Your task to perform on an android device: see tabs open on other devices in the chrome app Image 0: 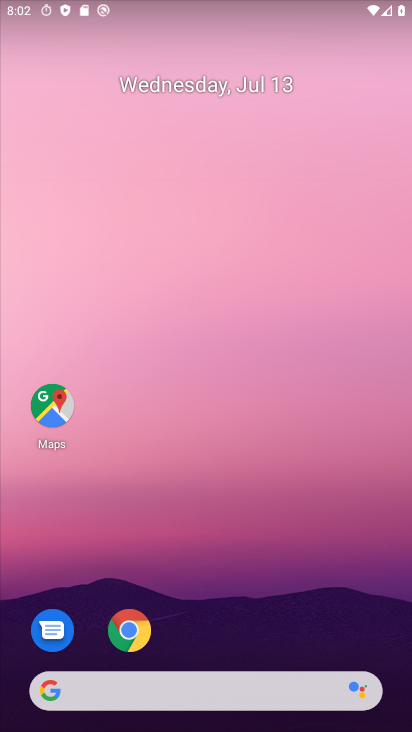
Step 0: drag from (209, 254) to (269, 156)
Your task to perform on an android device: see tabs open on other devices in the chrome app Image 1: 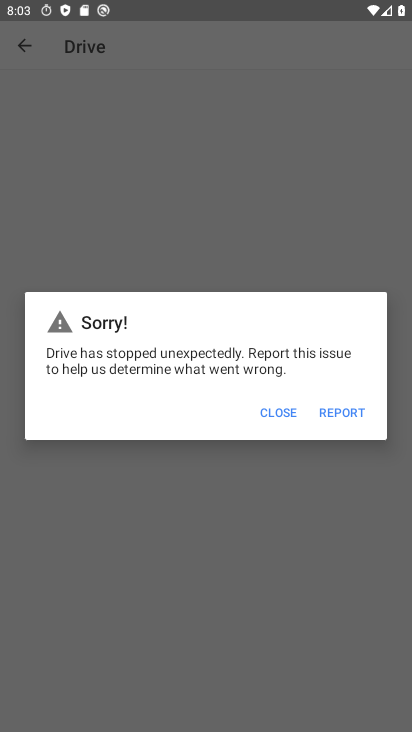
Step 1: press home button
Your task to perform on an android device: see tabs open on other devices in the chrome app Image 2: 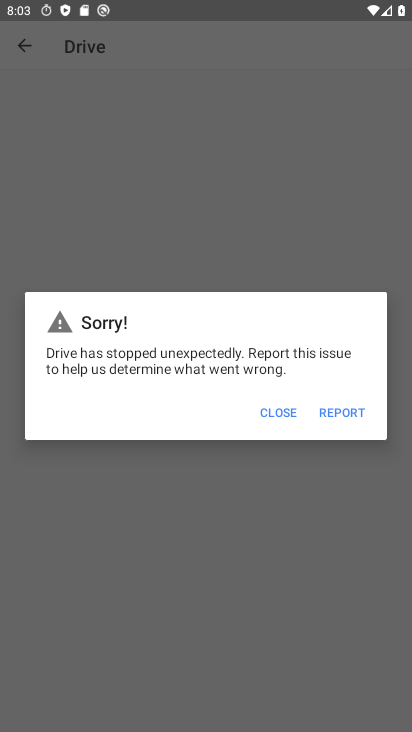
Step 2: press home button
Your task to perform on an android device: see tabs open on other devices in the chrome app Image 3: 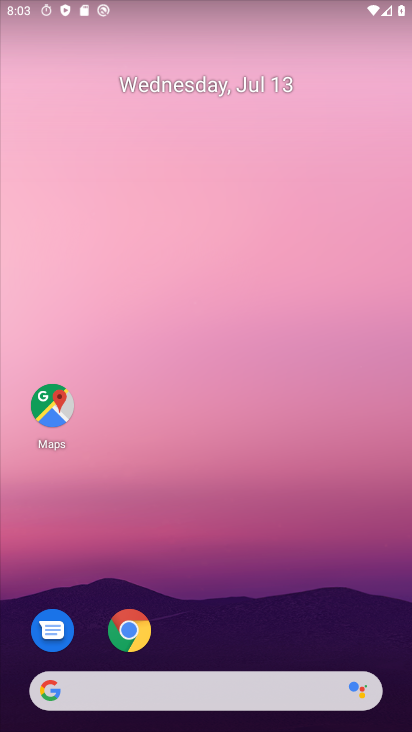
Step 3: drag from (186, 613) to (243, 119)
Your task to perform on an android device: see tabs open on other devices in the chrome app Image 4: 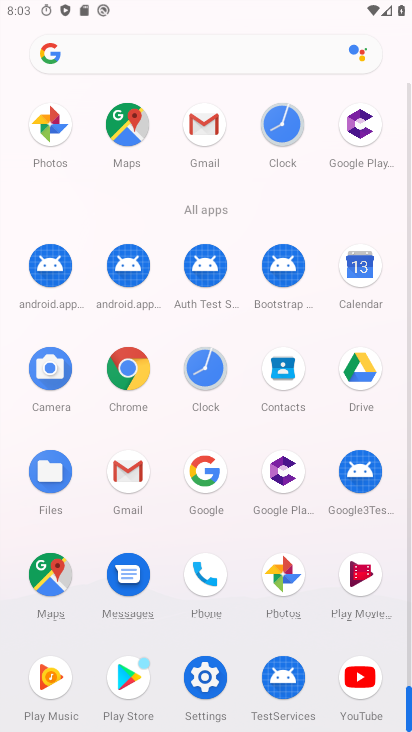
Step 4: drag from (182, 666) to (169, 311)
Your task to perform on an android device: see tabs open on other devices in the chrome app Image 5: 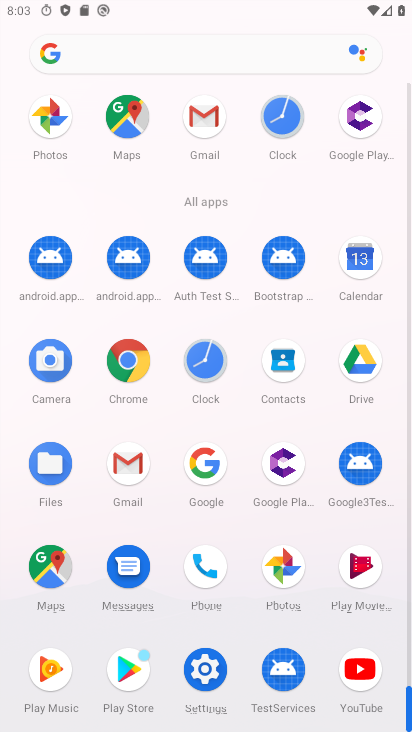
Step 5: drag from (175, 622) to (213, 389)
Your task to perform on an android device: see tabs open on other devices in the chrome app Image 6: 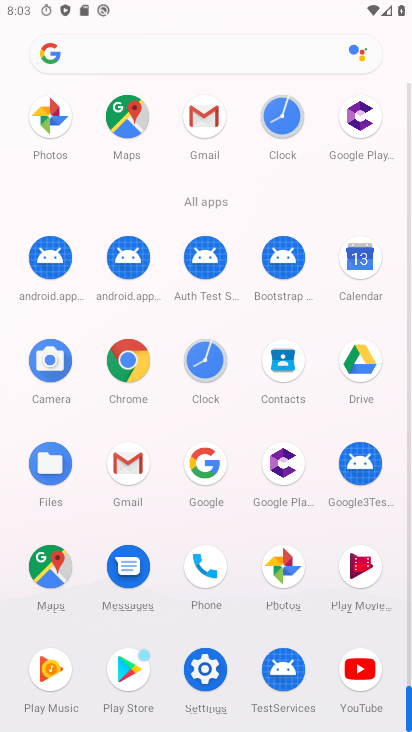
Step 6: drag from (174, 610) to (173, 357)
Your task to perform on an android device: see tabs open on other devices in the chrome app Image 7: 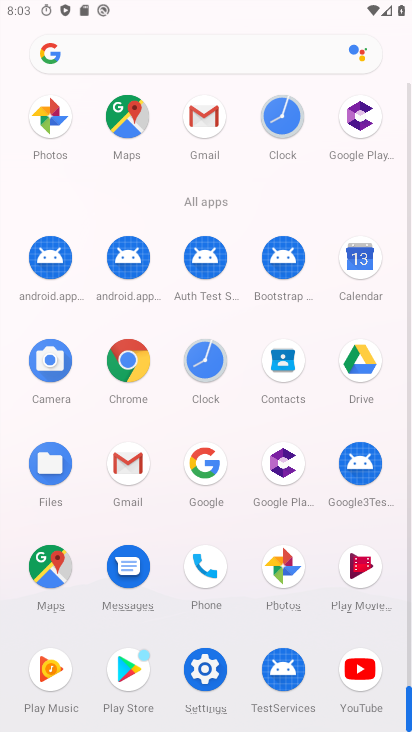
Step 7: drag from (160, 614) to (181, 472)
Your task to perform on an android device: see tabs open on other devices in the chrome app Image 8: 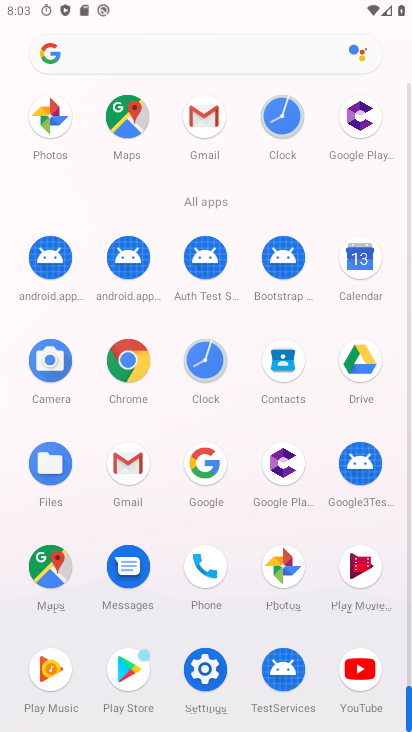
Step 8: click (123, 359)
Your task to perform on an android device: see tabs open on other devices in the chrome app Image 9: 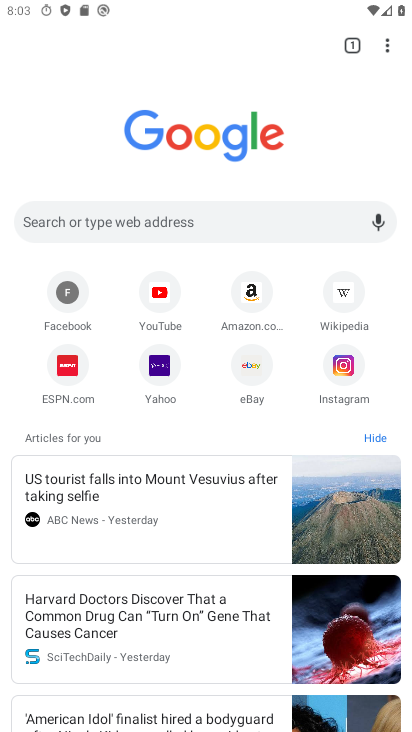
Step 9: drag from (211, 424) to (200, 239)
Your task to perform on an android device: see tabs open on other devices in the chrome app Image 10: 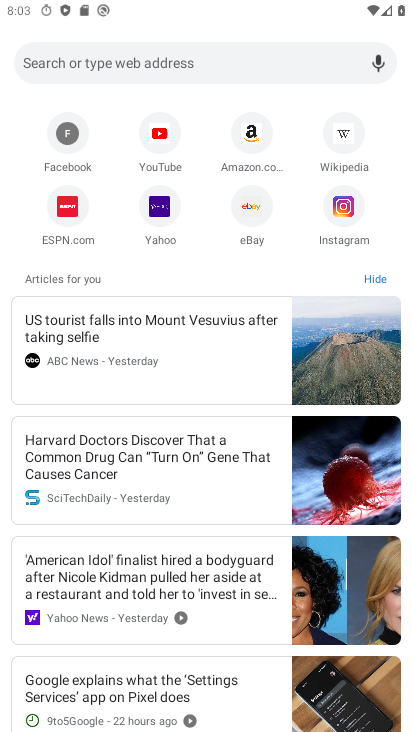
Step 10: drag from (193, 188) to (199, 613)
Your task to perform on an android device: see tabs open on other devices in the chrome app Image 11: 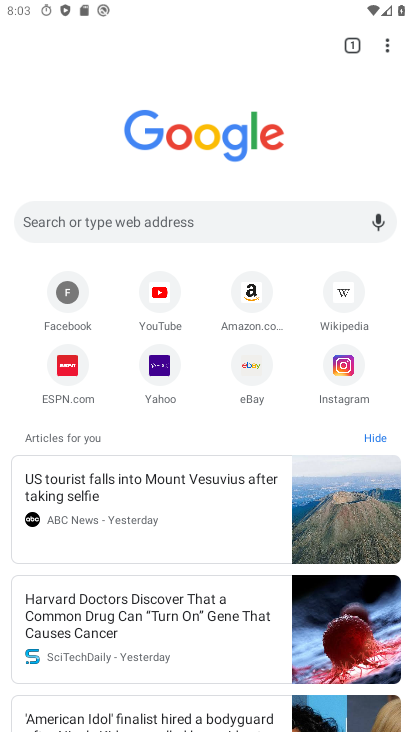
Step 11: drag from (159, 618) to (190, 379)
Your task to perform on an android device: see tabs open on other devices in the chrome app Image 12: 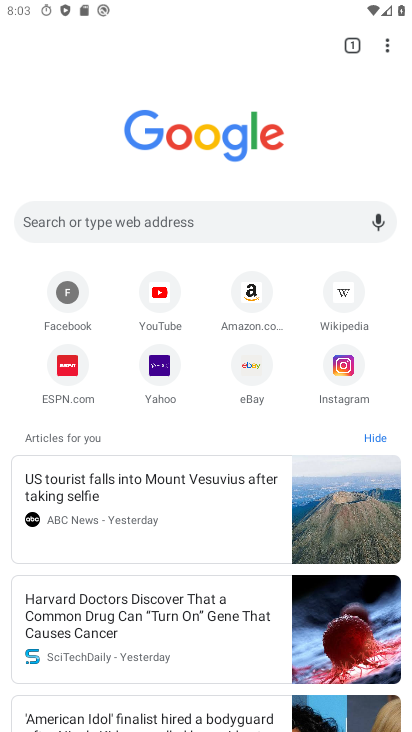
Step 12: drag from (130, 561) to (184, 334)
Your task to perform on an android device: see tabs open on other devices in the chrome app Image 13: 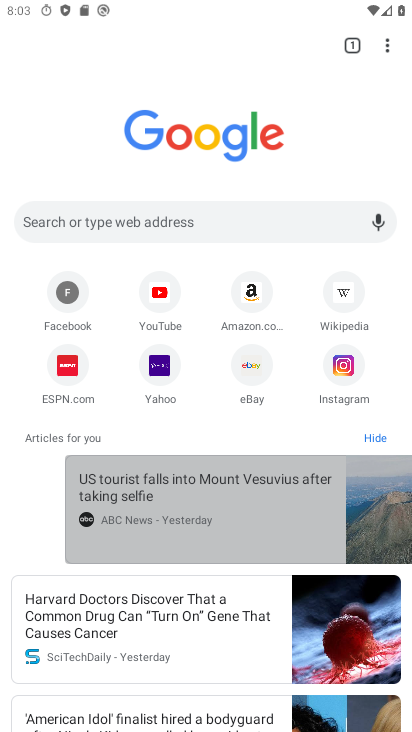
Step 13: drag from (209, 232) to (199, 643)
Your task to perform on an android device: see tabs open on other devices in the chrome app Image 14: 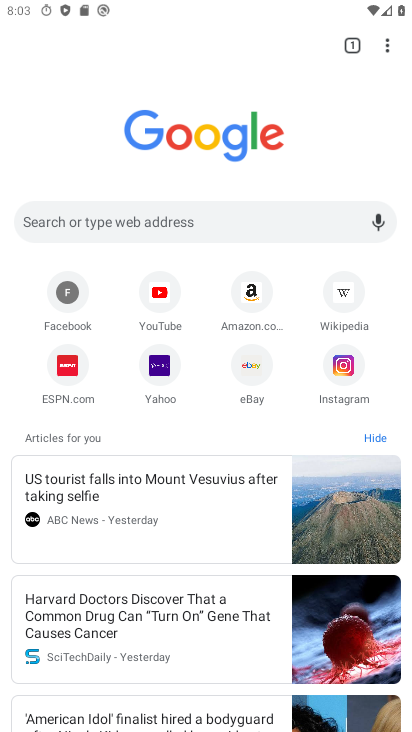
Step 14: click (385, 40)
Your task to perform on an android device: see tabs open on other devices in the chrome app Image 15: 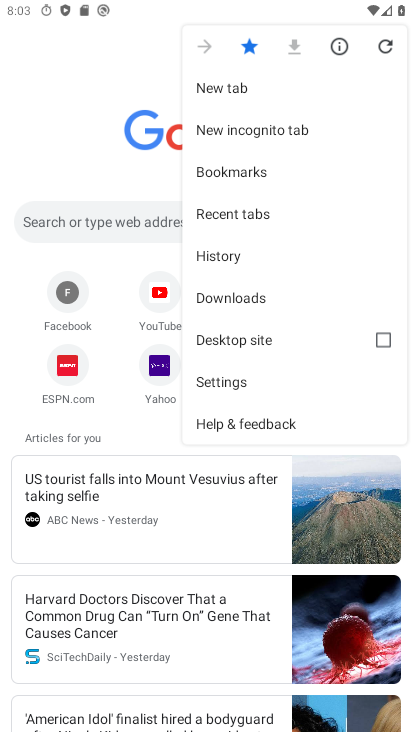
Step 15: click (235, 83)
Your task to perform on an android device: see tabs open on other devices in the chrome app Image 16: 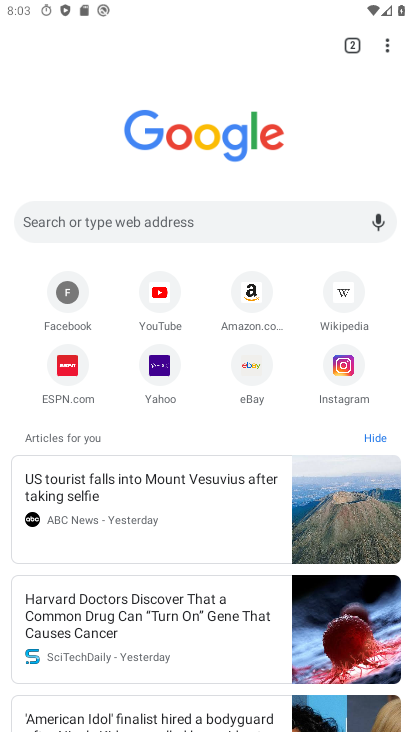
Step 16: drag from (199, 571) to (210, 328)
Your task to perform on an android device: see tabs open on other devices in the chrome app Image 17: 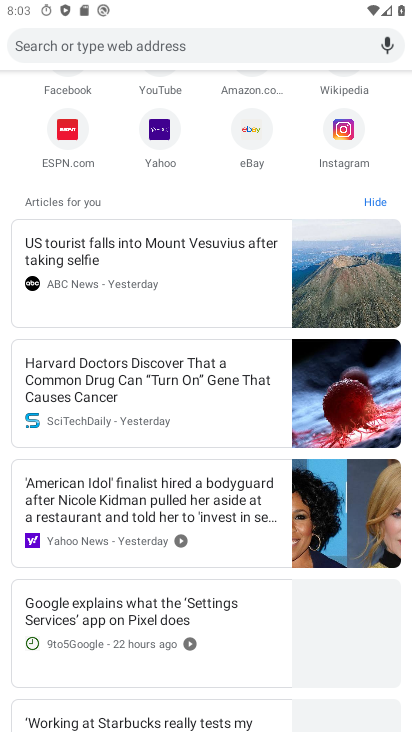
Step 17: drag from (212, 182) to (203, 692)
Your task to perform on an android device: see tabs open on other devices in the chrome app Image 18: 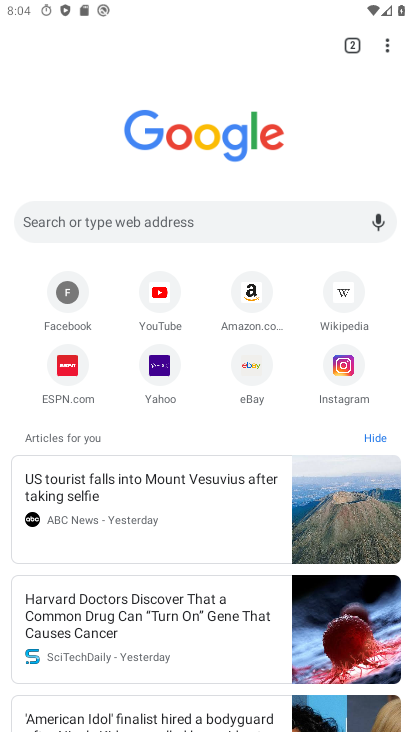
Step 18: click (391, 47)
Your task to perform on an android device: see tabs open on other devices in the chrome app Image 19: 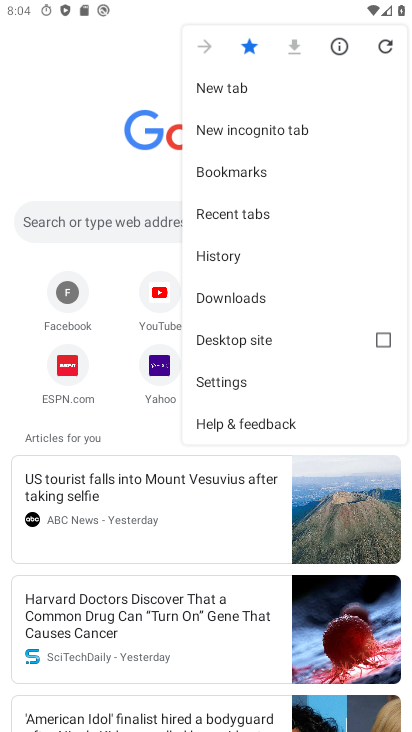
Step 19: click (232, 207)
Your task to perform on an android device: see tabs open on other devices in the chrome app Image 20: 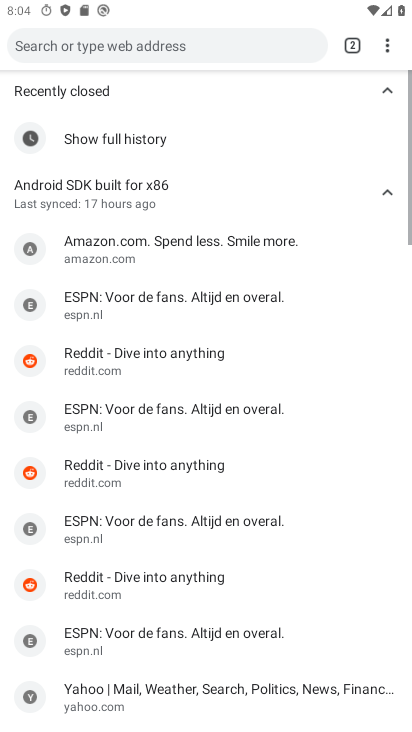
Step 20: task complete